Your task to perform on an android device: check data usage Image 0: 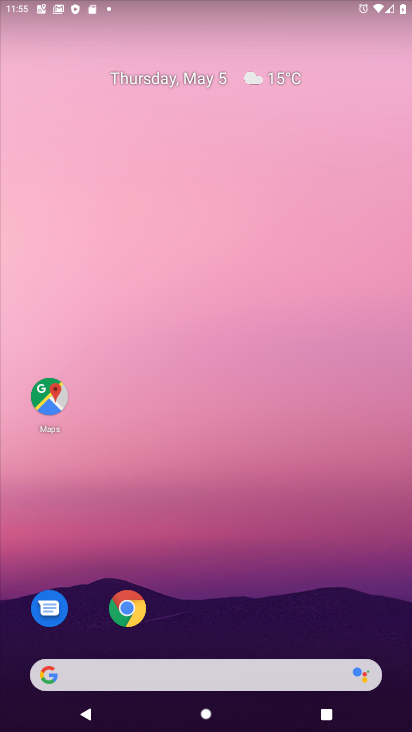
Step 0: drag from (212, 585) to (222, 159)
Your task to perform on an android device: check data usage Image 1: 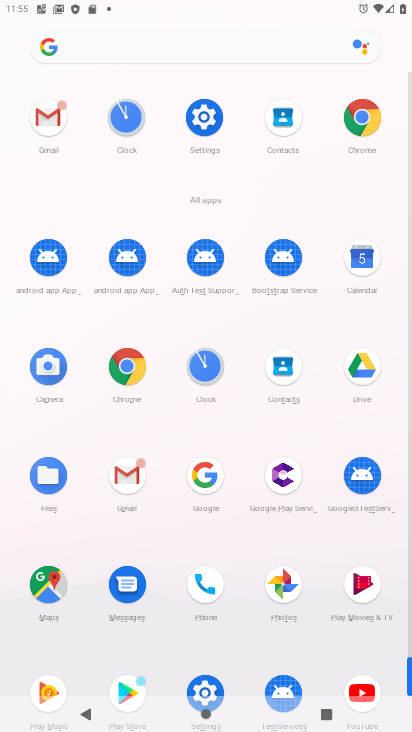
Step 1: click (202, 126)
Your task to perform on an android device: check data usage Image 2: 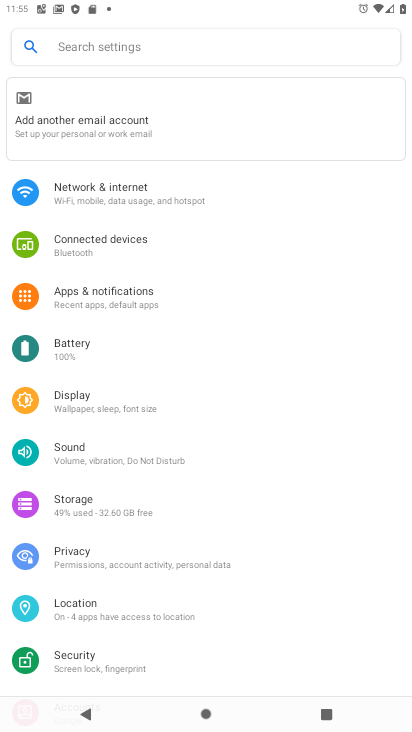
Step 2: click (84, 192)
Your task to perform on an android device: check data usage Image 3: 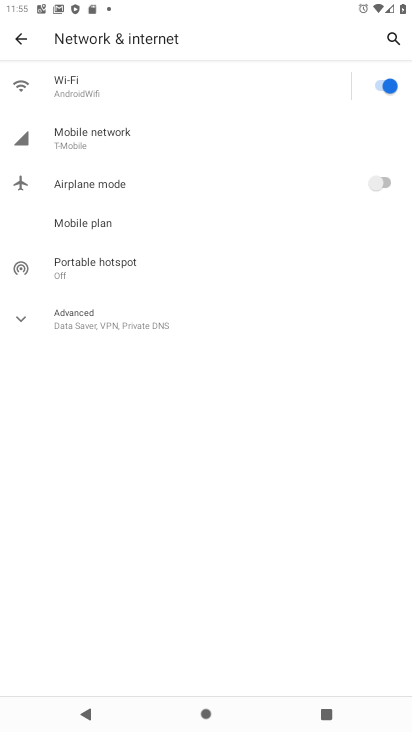
Step 3: click (111, 143)
Your task to perform on an android device: check data usage Image 4: 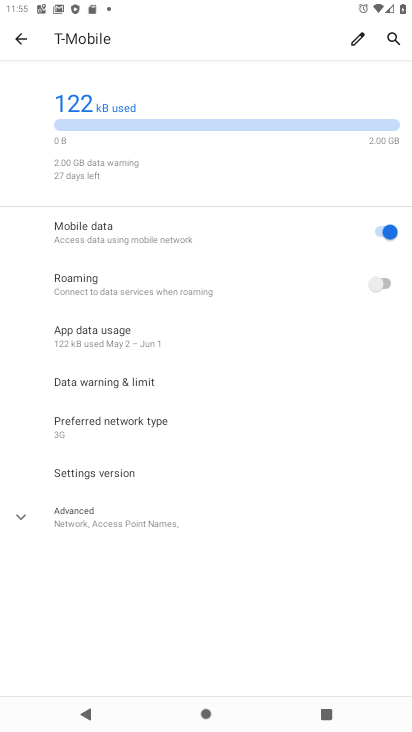
Step 4: task complete